Your task to perform on an android device: open sync settings in chrome Image 0: 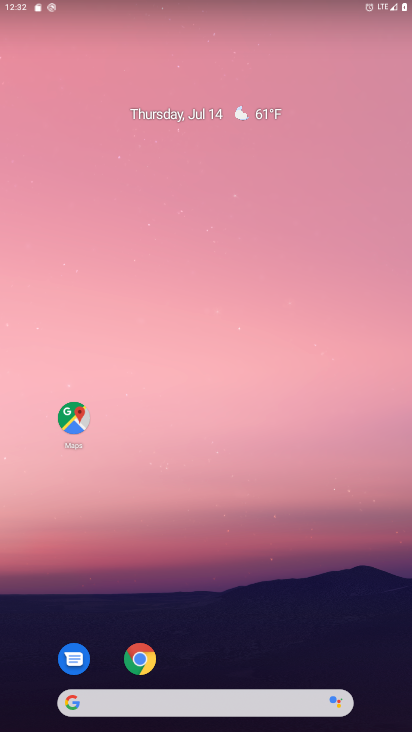
Step 0: press home button
Your task to perform on an android device: open sync settings in chrome Image 1: 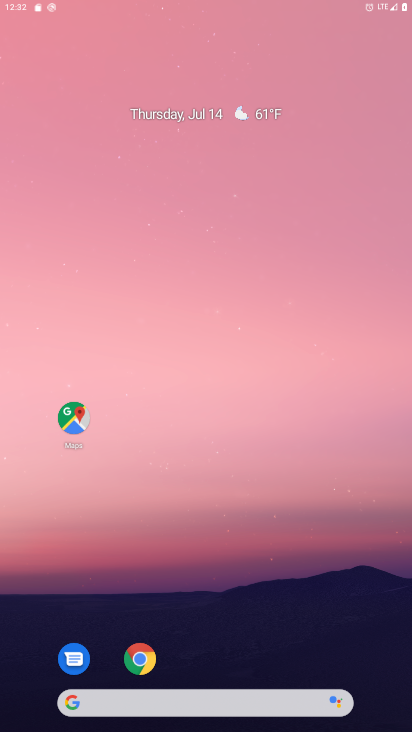
Step 1: drag from (212, 674) to (183, 408)
Your task to perform on an android device: open sync settings in chrome Image 2: 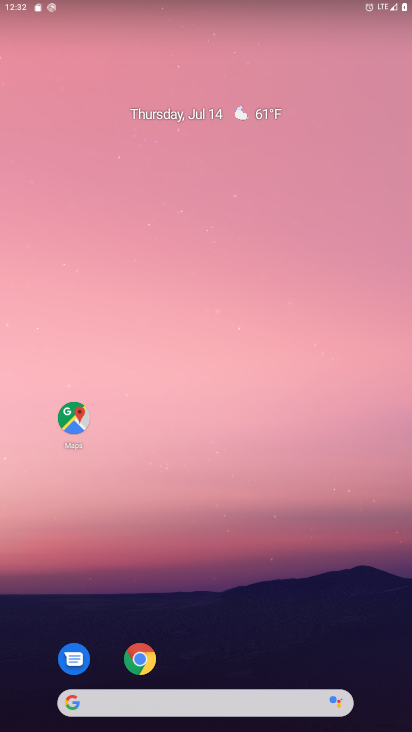
Step 2: click (132, 660)
Your task to perform on an android device: open sync settings in chrome Image 3: 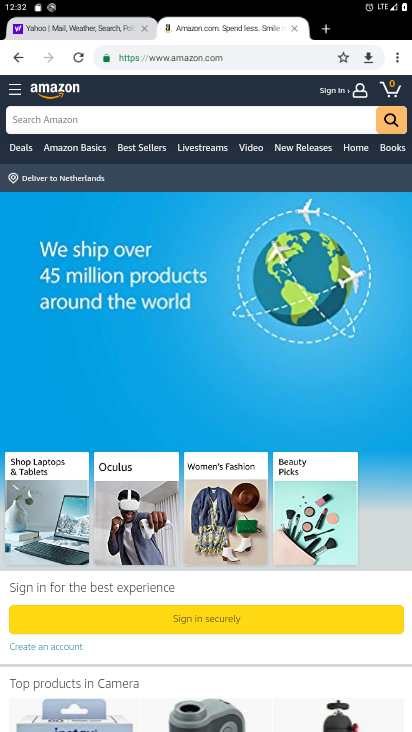
Step 3: click (399, 59)
Your task to perform on an android device: open sync settings in chrome Image 4: 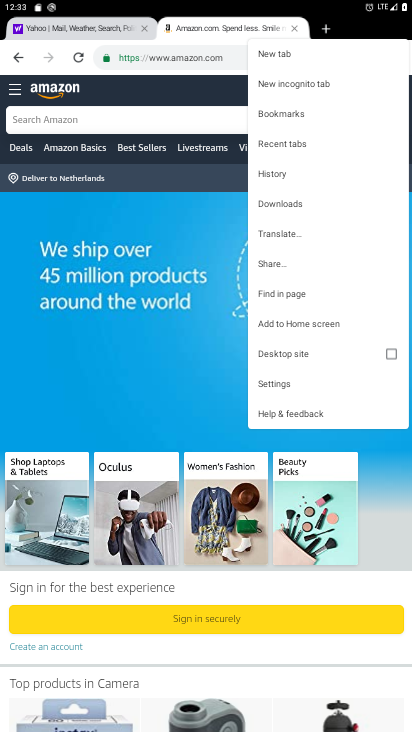
Step 4: click (291, 382)
Your task to perform on an android device: open sync settings in chrome Image 5: 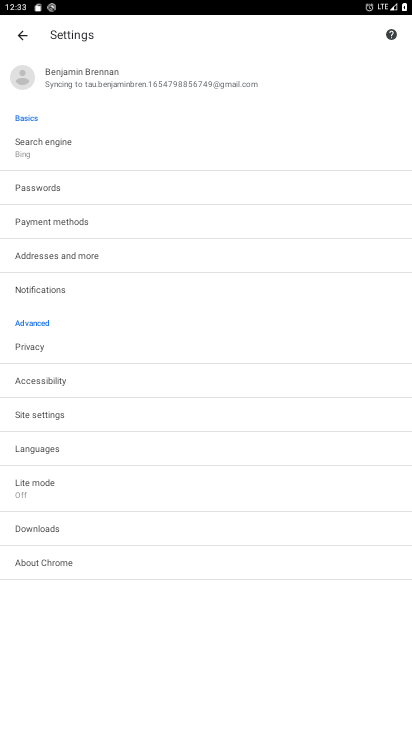
Step 5: click (103, 68)
Your task to perform on an android device: open sync settings in chrome Image 6: 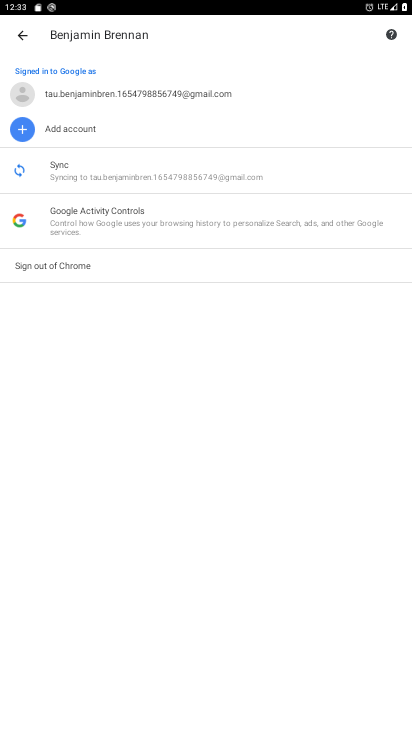
Step 6: click (94, 162)
Your task to perform on an android device: open sync settings in chrome Image 7: 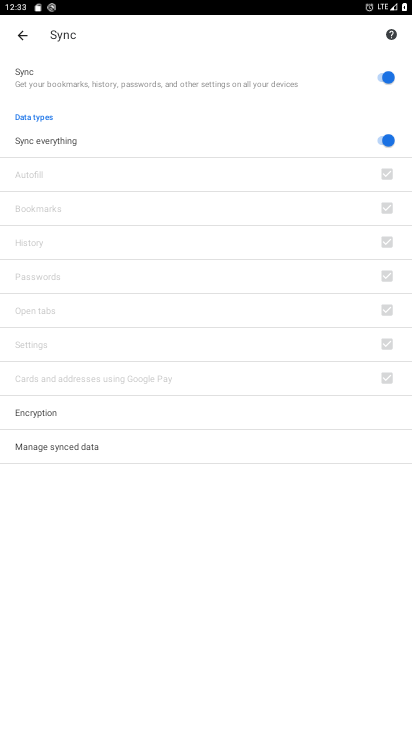
Step 7: task complete